Your task to perform on an android device: Search for a small bookcase on Ikea.com Image 0: 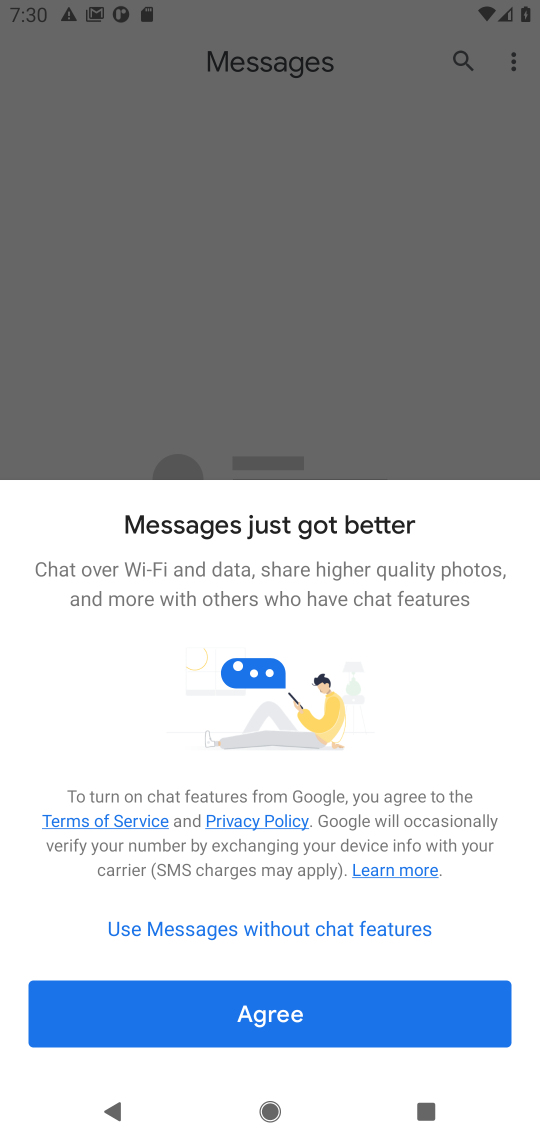
Step 0: click (318, 997)
Your task to perform on an android device: Search for a small bookcase on Ikea.com Image 1: 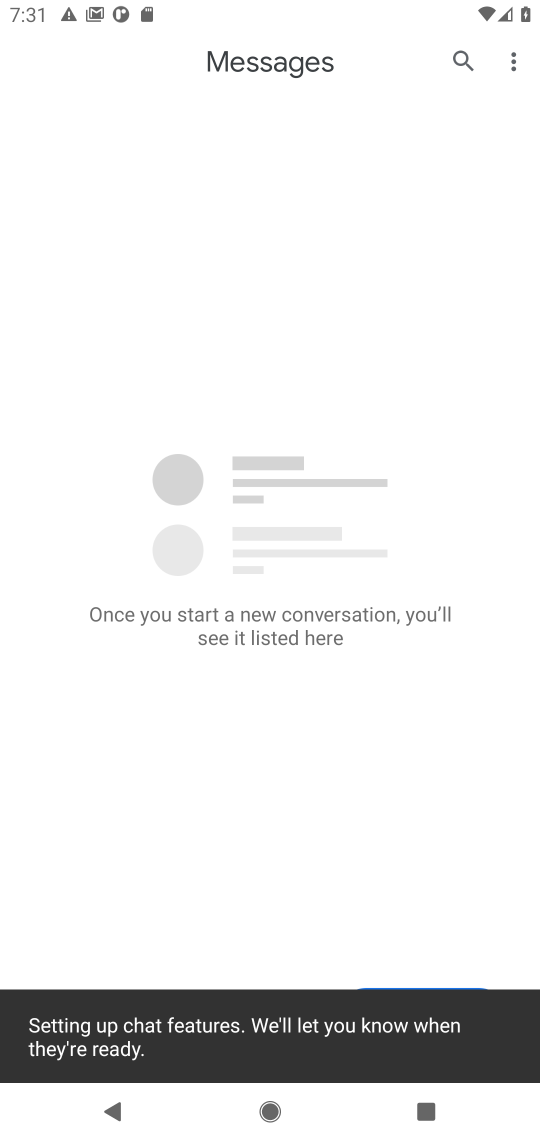
Step 1: task complete